Your task to perform on an android device: move an email to a new category in the gmail app Image 0: 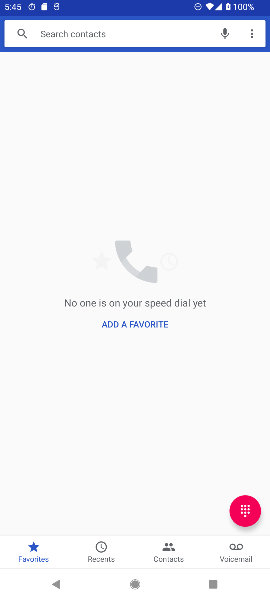
Step 0: drag from (152, 532) to (122, 297)
Your task to perform on an android device: move an email to a new category in the gmail app Image 1: 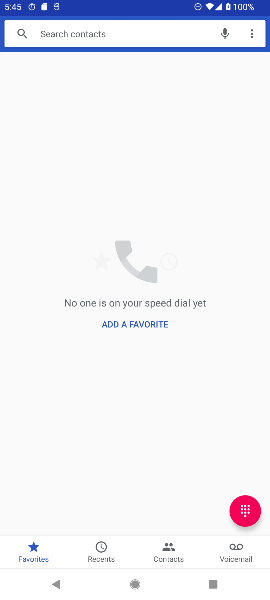
Step 1: press back button
Your task to perform on an android device: move an email to a new category in the gmail app Image 2: 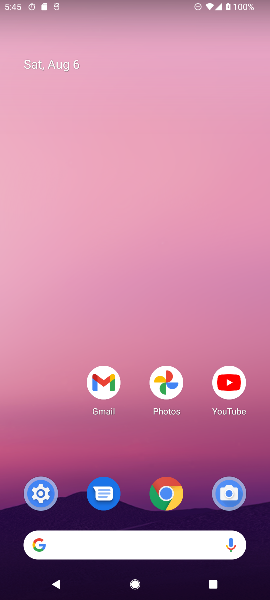
Step 2: drag from (182, 508) to (134, 301)
Your task to perform on an android device: move an email to a new category in the gmail app Image 3: 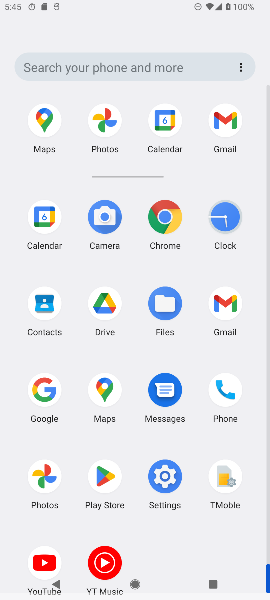
Step 3: drag from (136, 580) to (89, 303)
Your task to perform on an android device: move an email to a new category in the gmail app Image 4: 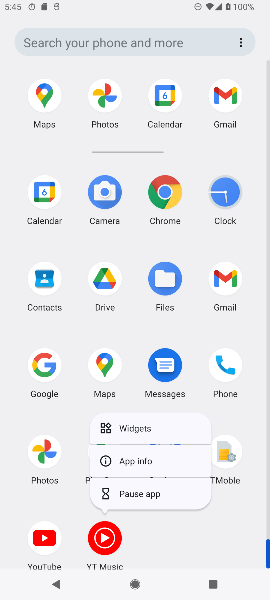
Step 4: click (223, 275)
Your task to perform on an android device: move an email to a new category in the gmail app Image 5: 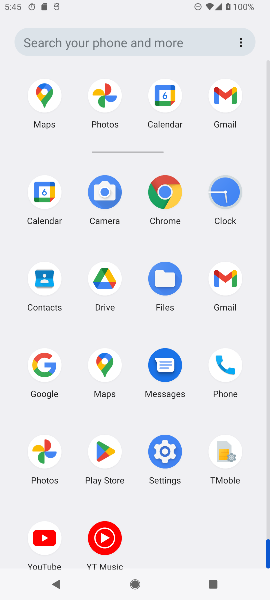
Step 5: click (222, 275)
Your task to perform on an android device: move an email to a new category in the gmail app Image 6: 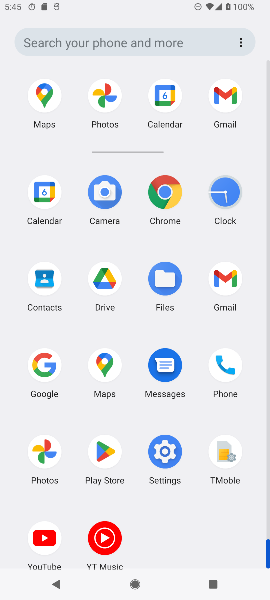
Step 6: click (223, 276)
Your task to perform on an android device: move an email to a new category in the gmail app Image 7: 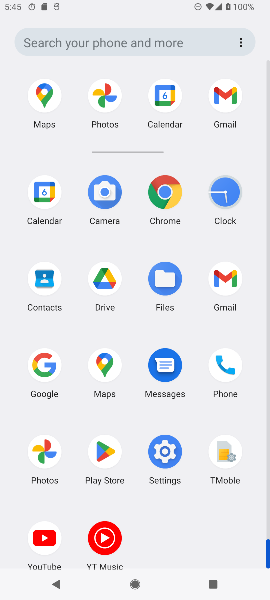
Step 7: click (223, 277)
Your task to perform on an android device: move an email to a new category in the gmail app Image 8: 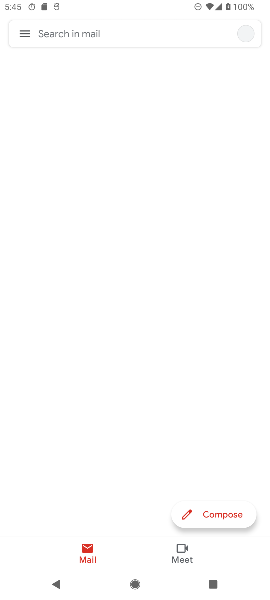
Step 8: click (226, 275)
Your task to perform on an android device: move an email to a new category in the gmail app Image 9: 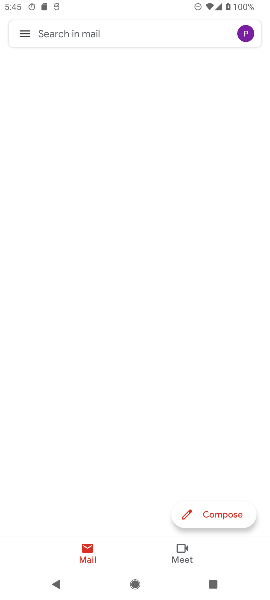
Step 9: click (226, 275)
Your task to perform on an android device: move an email to a new category in the gmail app Image 10: 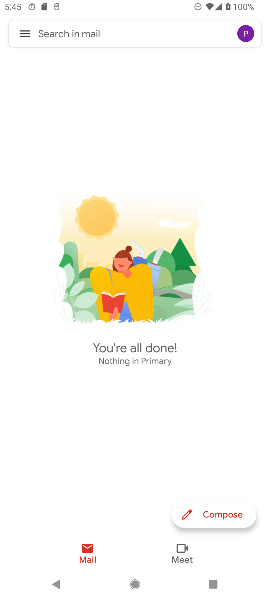
Step 10: click (16, 23)
Your task to perform on an android device: move an email to a new category in the gmail app Image 11: 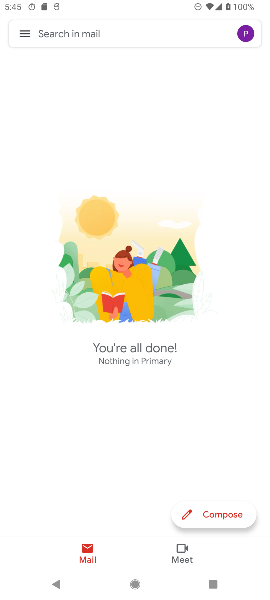
Step 11: click (16, 29)
Your task to perform on an android device: move an email to a new category in the gmail app Image 12: 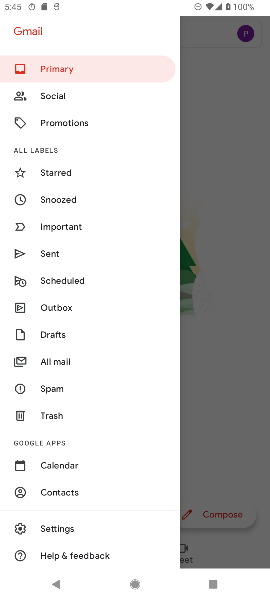
Step 12: click (52, 358)
Your task to perform on an android device: move an email to a new category in the gmail app Image 13: 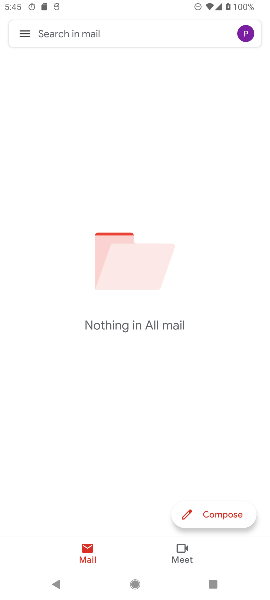
Step 13: task complete